Your task to perform on an android device: add a contact Image 0: 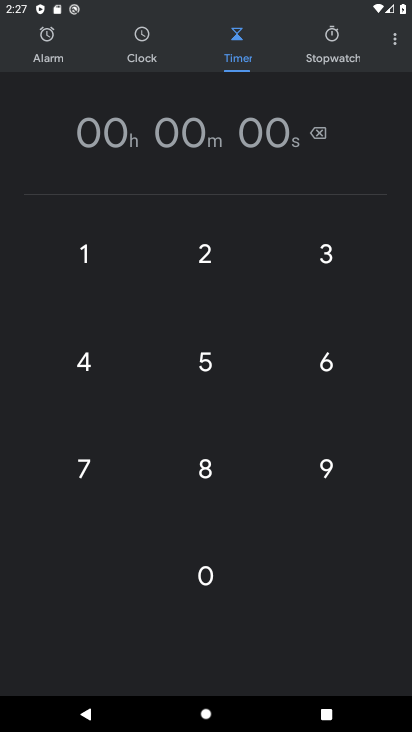
Step 0: press home button
Your task to perform on an android device: add a contact Image 1: 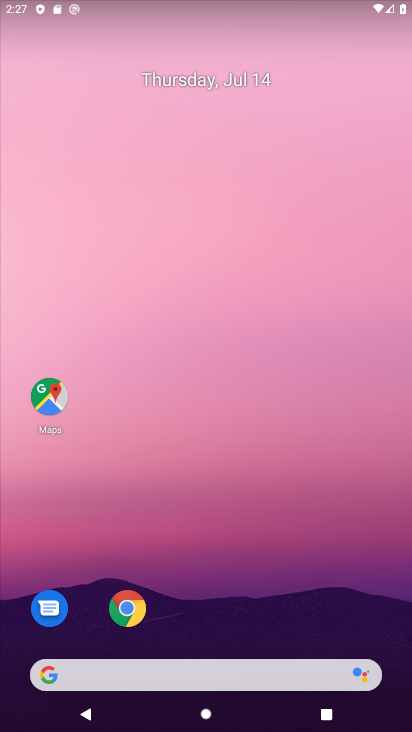
Step 1: drag from (260, 428) to (296, 285)
Your task to perform on an android device: add a contact Image 2: 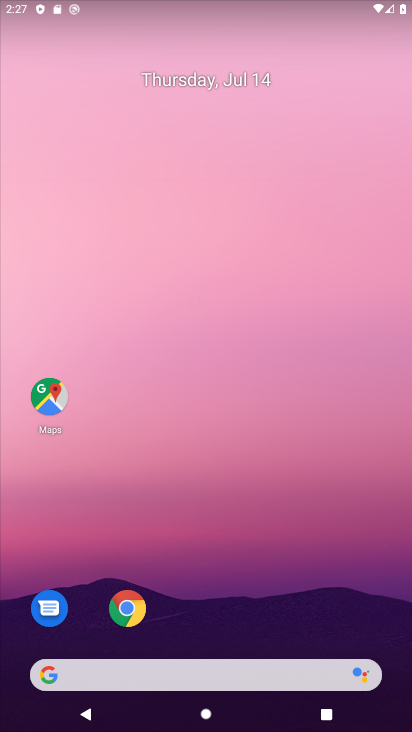
Step 2: drag from (228, 606) to (402, 11)
Your task to perform on an android device: add a contact Image 3: 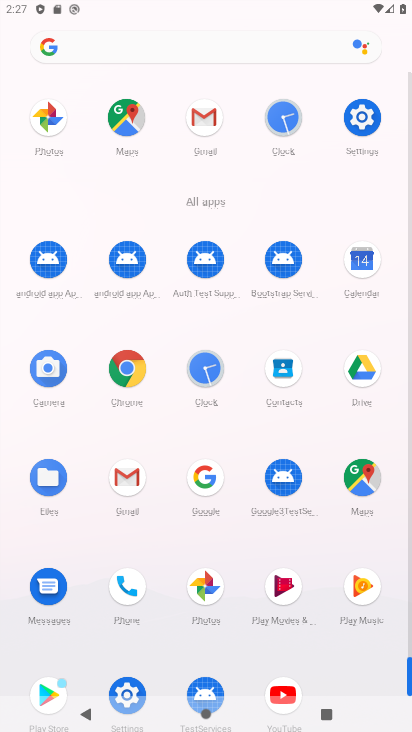
Step 3: click (292, 360)
Your task to perform on an android device: add a contact Image 4: 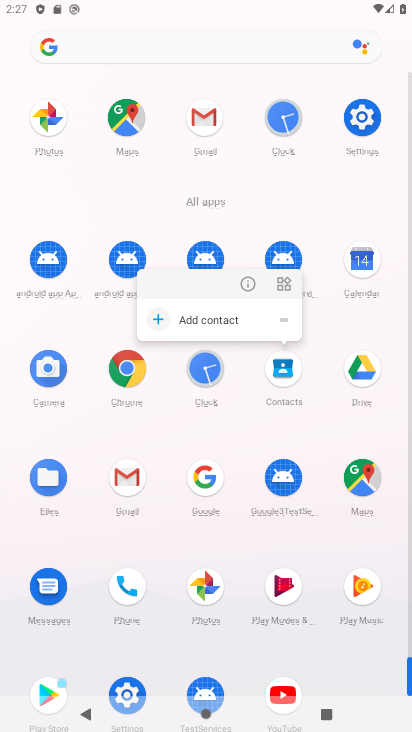
Step 4: click (245, 286)
Your task to perform on an android device: add a contact Image 5: 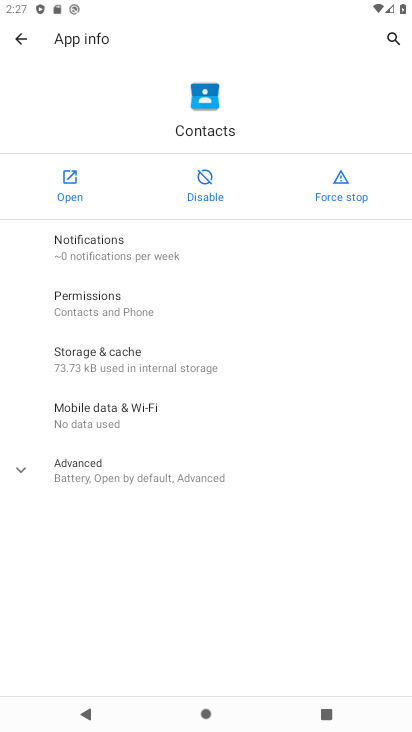
Step 5: click (75, 179)
Your task to perform on an android device: add a contact Image 6: 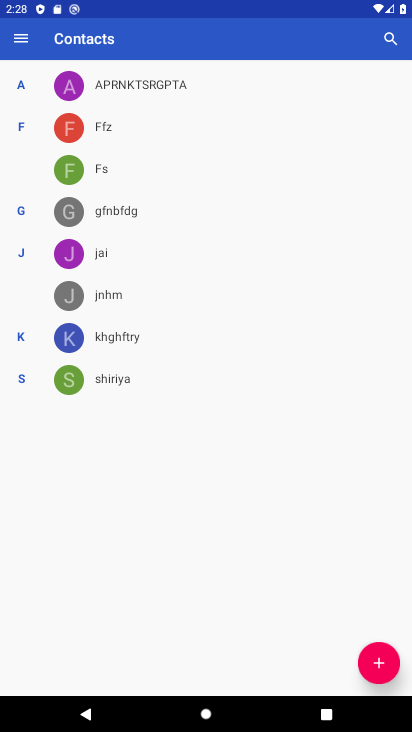
Step 6: click (251, 460)
Your task to perform on an android device: add a contact Image 7: 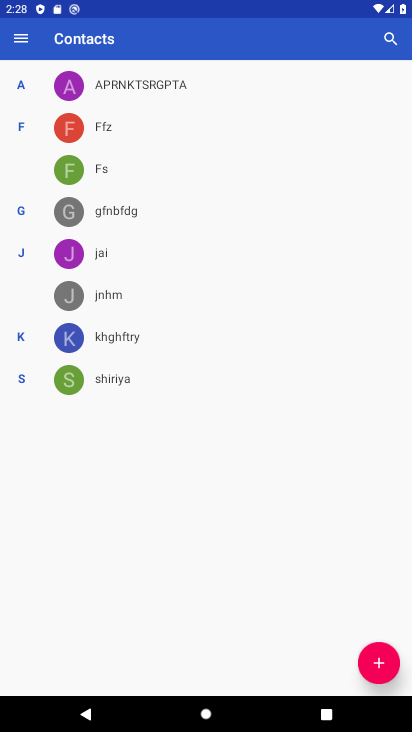
Step 7: click (376, 659)
Your task to perform on an android device: add a contact Image 8: 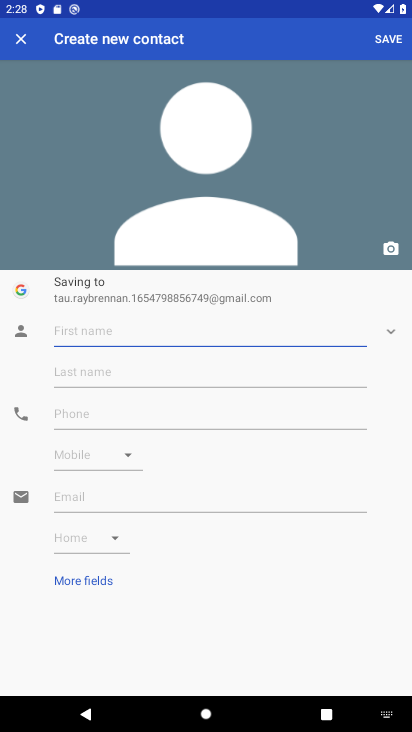
Step 8: type "kjm"
Your task to perform on an android device: add a contact Image 9: 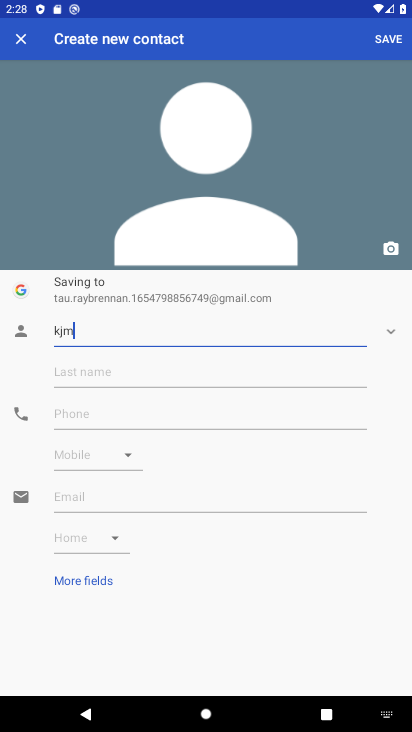
Step 9: click (394, 44)
Your task to perform on an android device: add a contact Image 10: 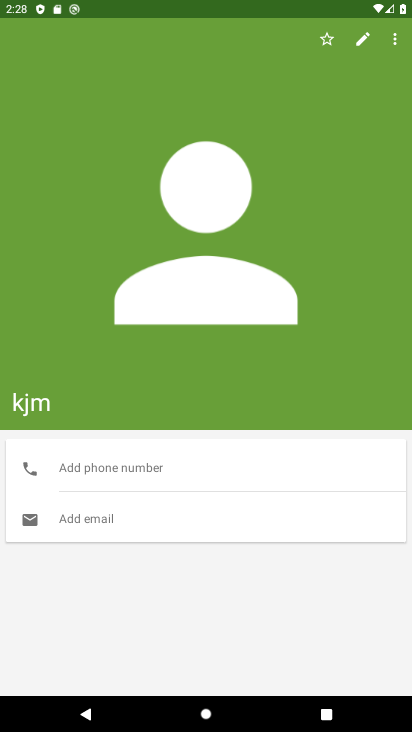
Step 10: task complete